Your task to perform on an android device: open a bookmark in the chrome app Image 0: 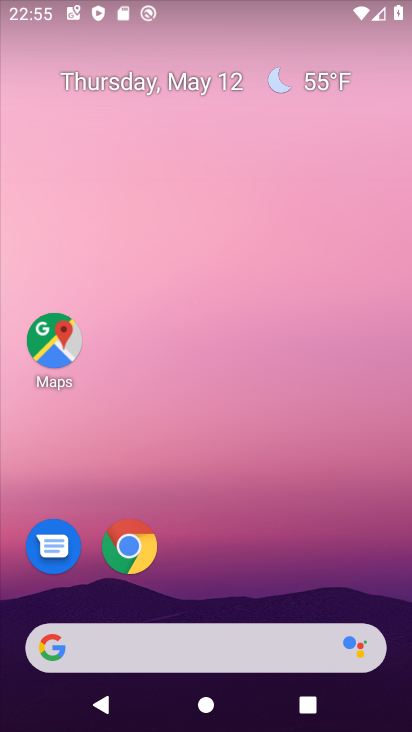
Step 0: click (124, 568)
Your task to perform on an android device: open a bookmark in the chrome app Image 1: 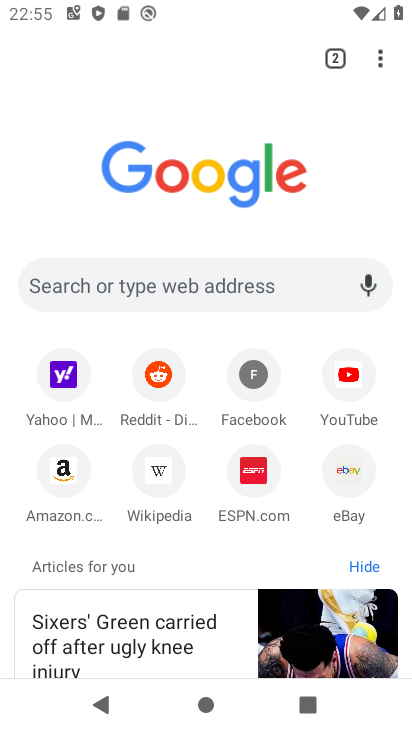
Step 1: click (382, 60)
Your task to perform on an android device: open a bookmark in the chrome app Image 2: 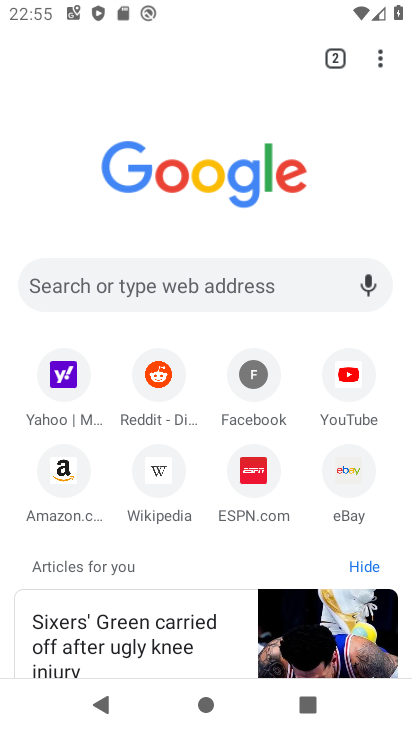
Step 2: click (378, 58)
Your task to perform on an android device: open a bookmark in the chrome app Image 3: 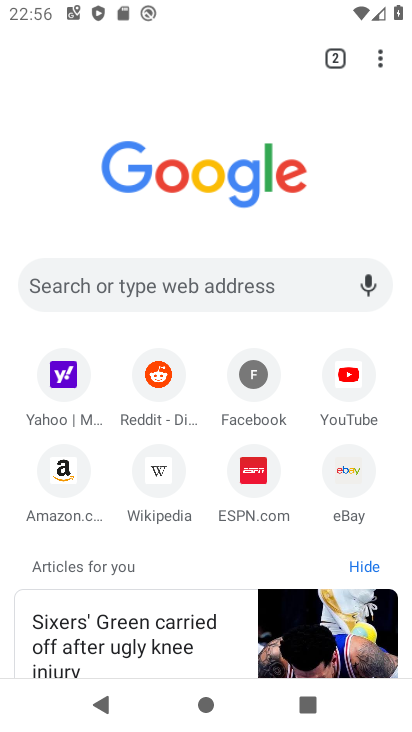
Step 3: click (381, 59)
Your task to perform on an android device: open a bookmark in the chrome app Image 4: 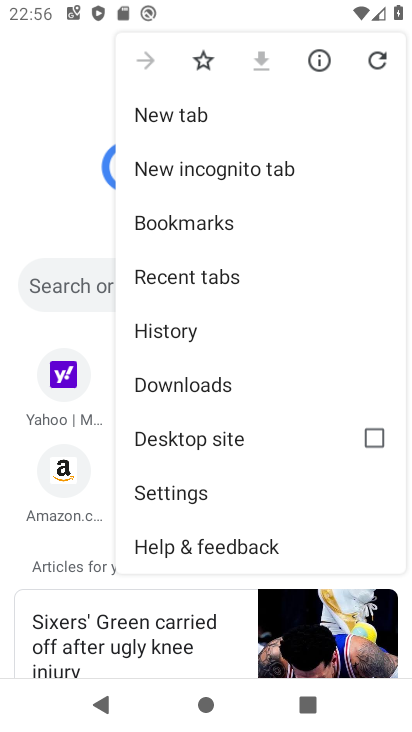
Step 4: click (229, 224)
Your task to perform on an android device: open a bookmark in the chrome app Image 5: 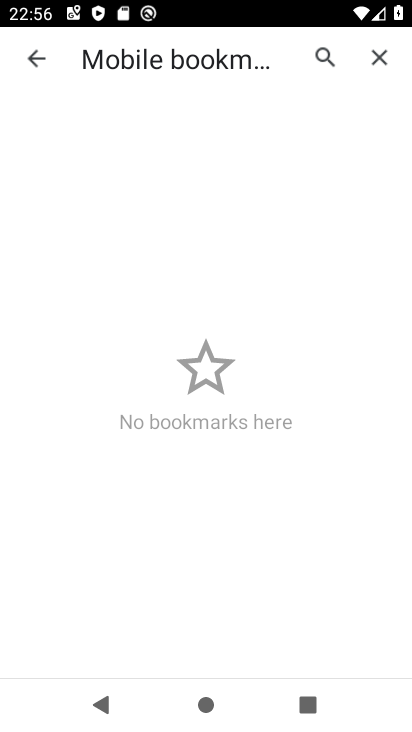
Step 5: task complete